Your task to perform on an android device: change keyboard looks Image 0: 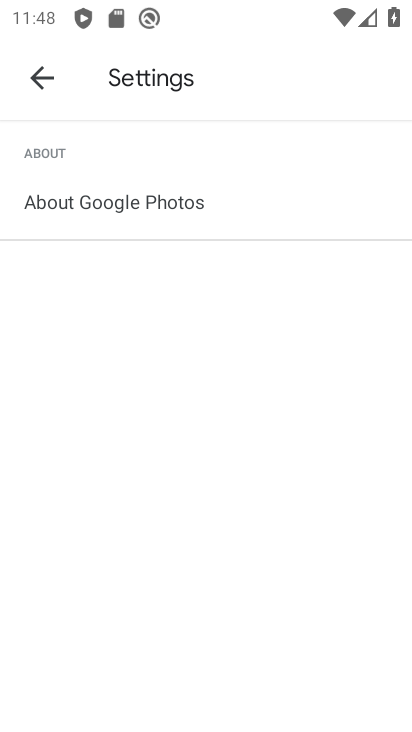
Step 0: press home button
Your task to perform on an android device: change keyboard looks Image 1: 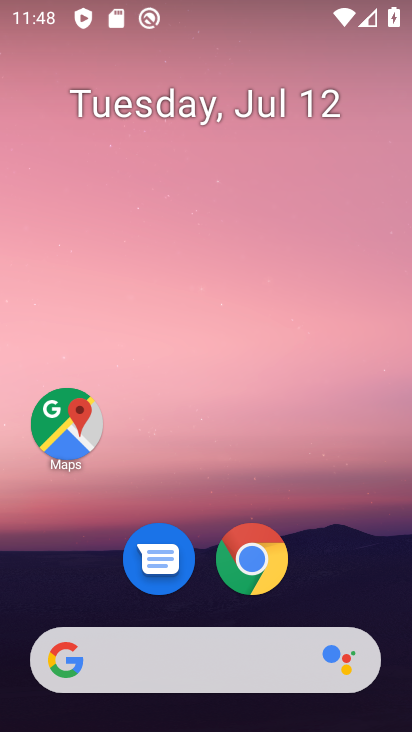
Step 1: drag from (205, 622) to (203, 261)
Your task to perform on an android device: change keyboard looks Image 2: 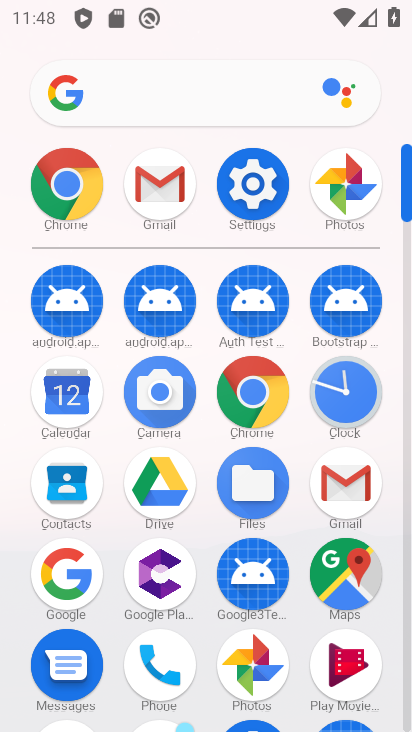
Step 2: drag from (156, 545) to (173, 372)
Your task to perform on an android device: change keyboard looks Image 3: 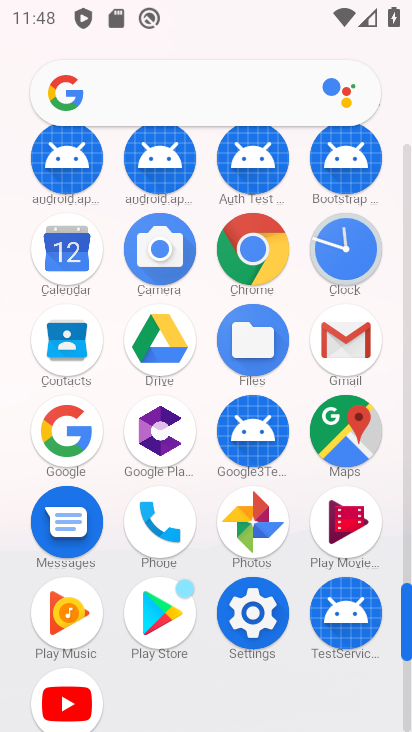
Step 3: click (251, 622)
Your task to perform on an android device: change keyboard looks Image 4: 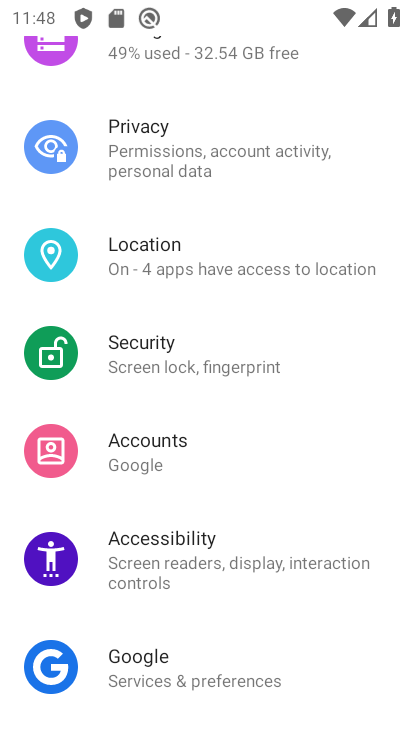
Step 4: drag from (168, 359) to (146, 601)
Your task to perform on an android device: change keyboard looks Image 5: 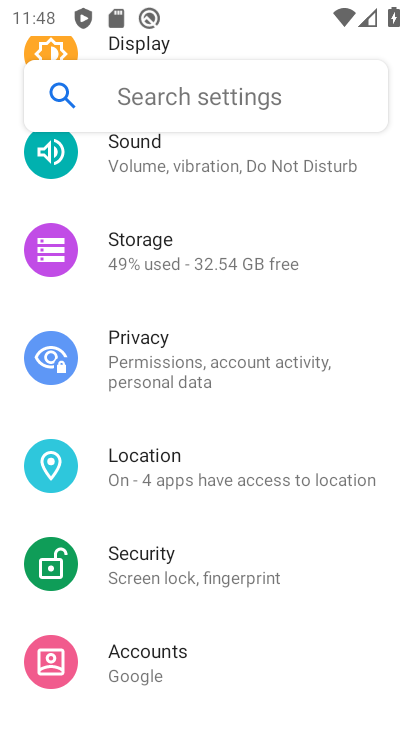
Step 5: drag from (141, 350) to (154, 591)
Your task to perform on an android device: change keyboard looks Image 6: 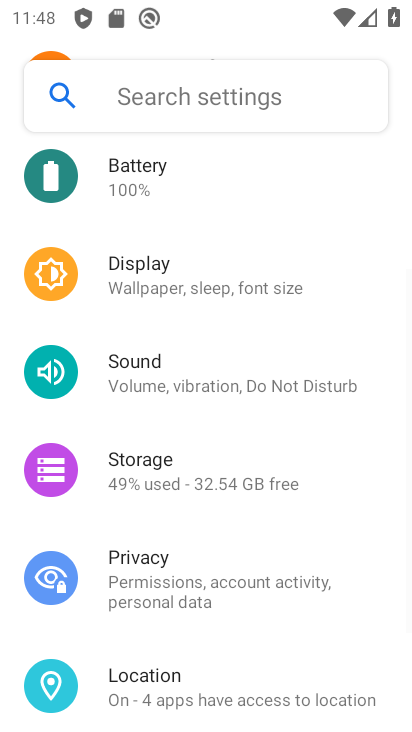
Step 6: drag from (160, 343) to (160, 599)
Your task to perform on an android device: change keyboard looks Image 7: 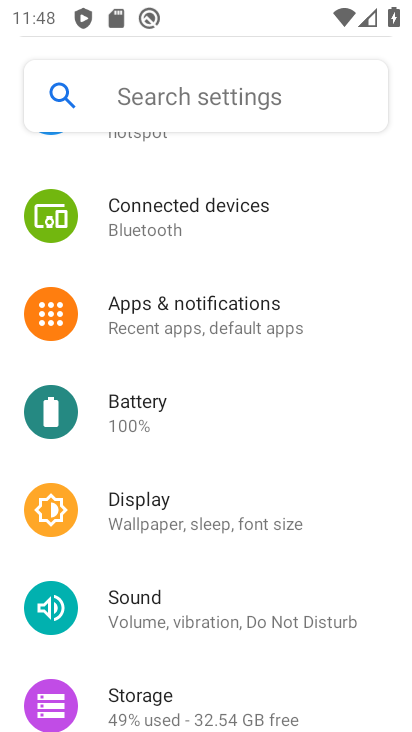
Step 7: drag from (147, 325) to (161, 503)
Your task to perform on an android device: change keyboard looks Image 8: 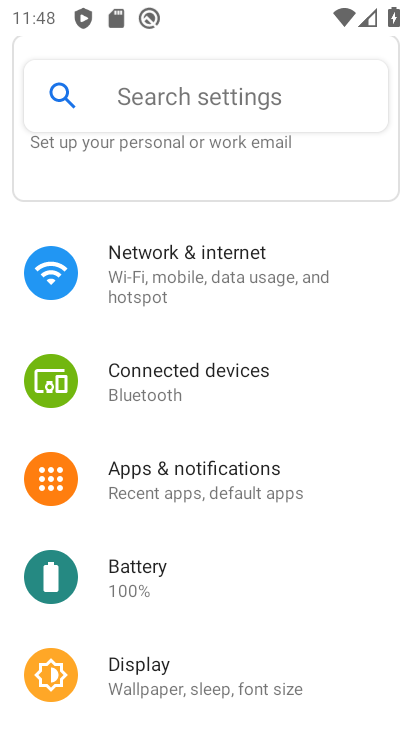
Step 8: drag from (156, 472) to (150, 298)
Your task to perform on an android device: change keyboard looks Image 9: 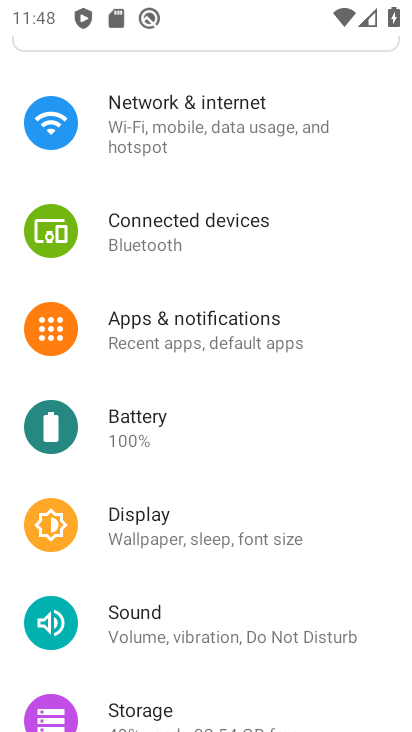
Step 9: drag from (164, 561) to (159, 263)
Your task to perform on an android device: change keyboard looks Image 10: 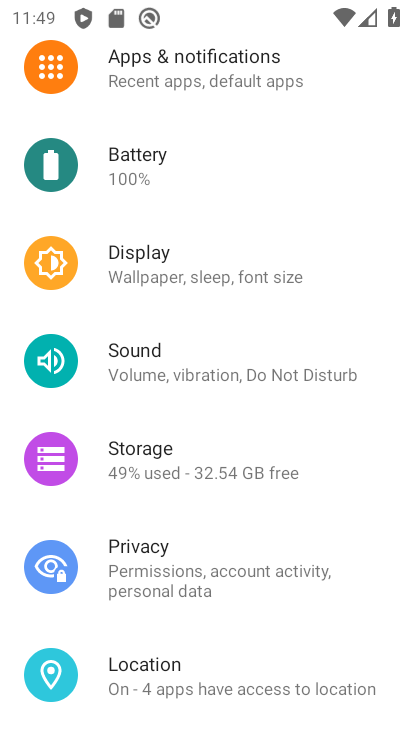
Step 10: drag from (162, 524) to (160, 274)
Your task to perform on an android device: change keyboard looks Image 11: 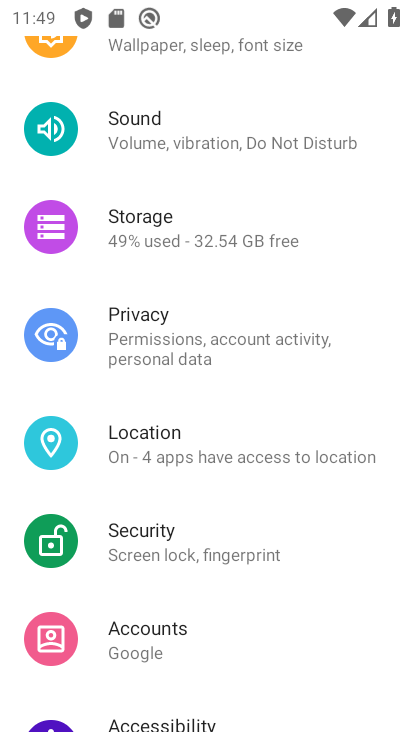
Step 11: drag from (162, 548) to (156, 325)
Your task to perform on an android device: change keyboard looks Image 12: 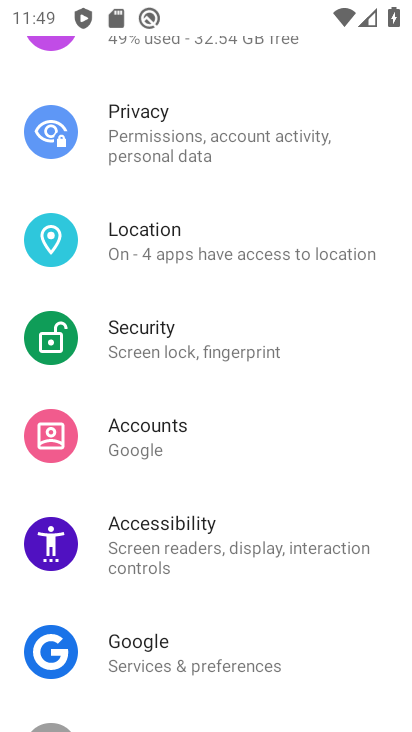
Step 12: drag from (161, 554) to (164, 374)
Your task to perform on an android device: change keyboard looks Image 13: 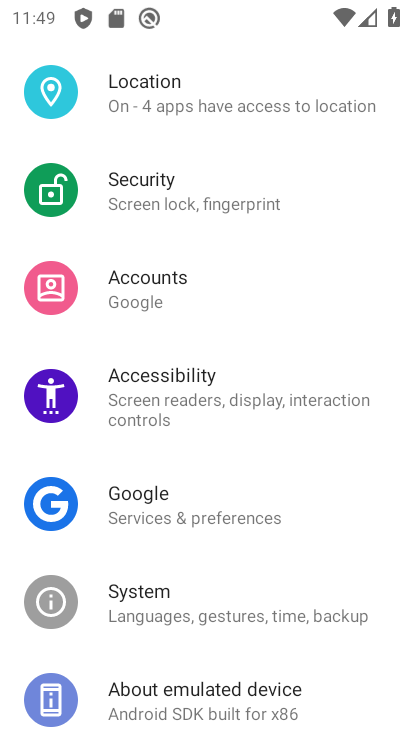
Step 13: click (176, 622)
Your task to perform on an android device: change keyboard looks Image 14: 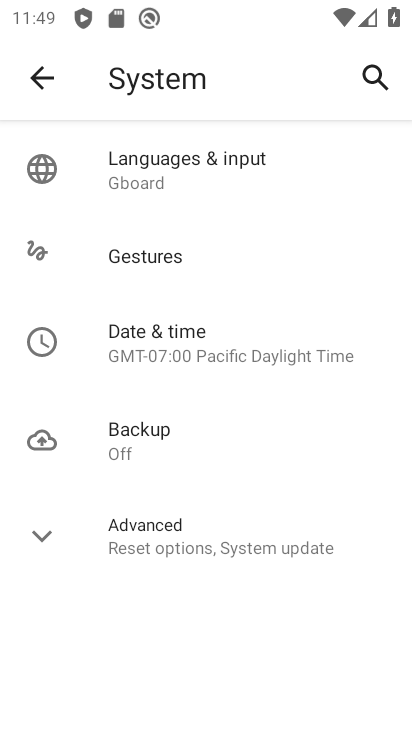
Step 14: click (160, 193)
Your task to perform on an android device: change keyboard looks Image 15: 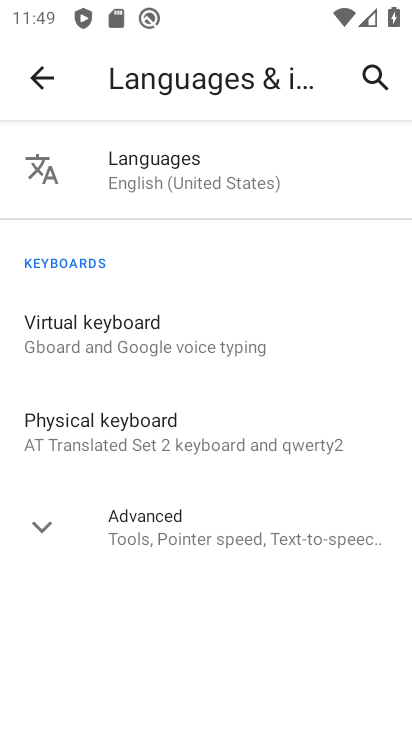
Step 15: click (97, 333)
Your task to perform on an android device: change keyboard looks Image 16: 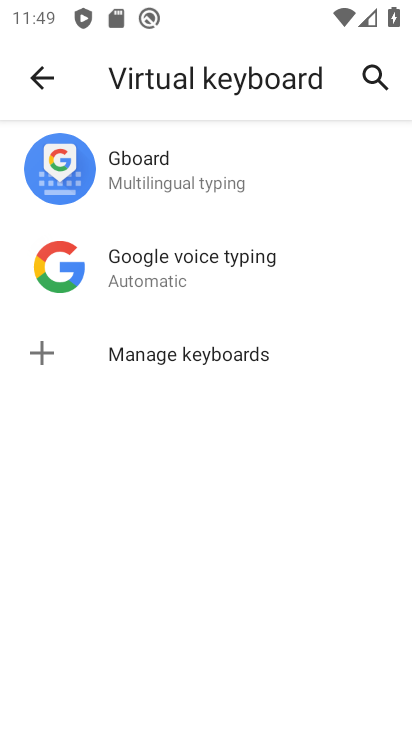
Step 16: click (102, 194)
Your task to perform on an android device: change keyboard looks Image 17: 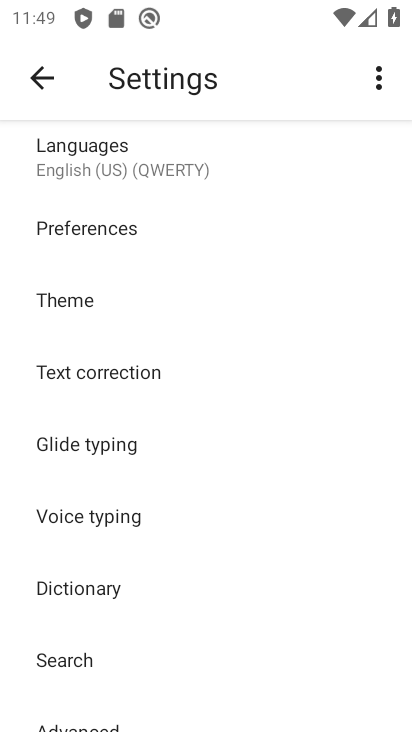
Step 17: click (82, 304)
Your task to perform on an android device: change keyboard looks Image 18: 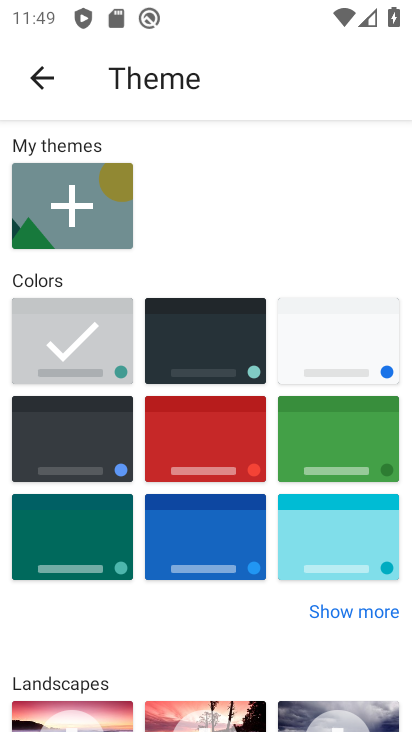
Step 18: click (99, 455)
Your task to perform on an android device: change keyboard looks Image 19: 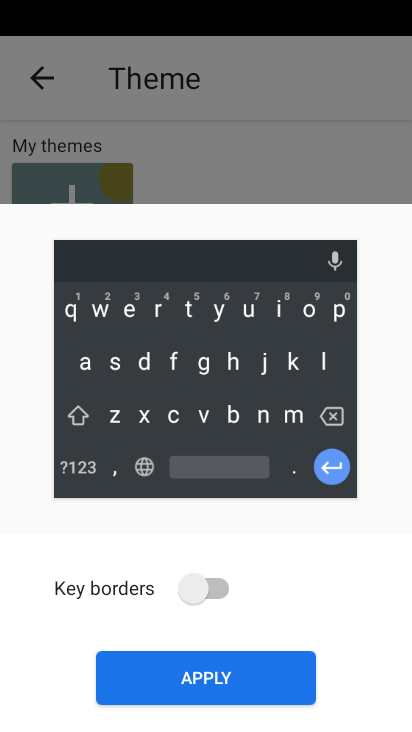
Step 19: click (232, 682)
Your task to perform on an android device: change keyboard looks Image 20: 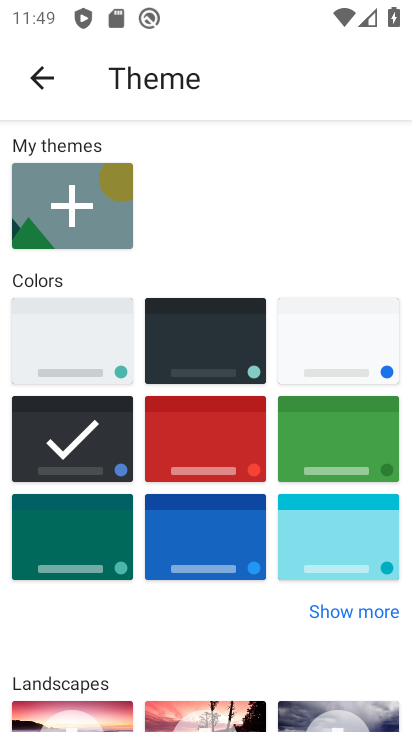
Step 20: task complete